Your task to perform on an android device: delete browsing data in the chrome app Image 0: 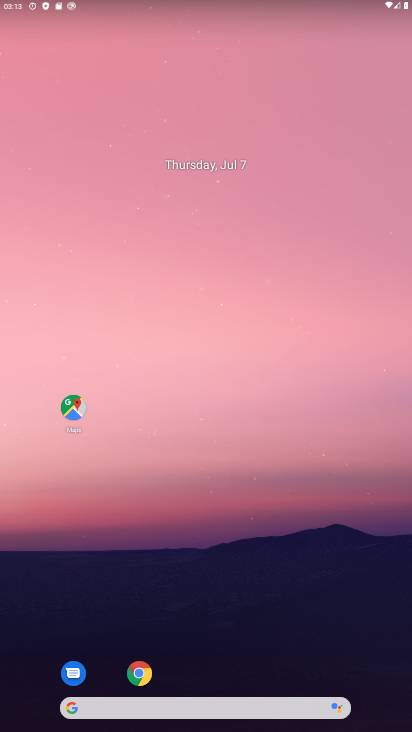
Step 0: click (138, 664)
Your task to perform on an android device: delete browsing data in the chrome app Image 1: 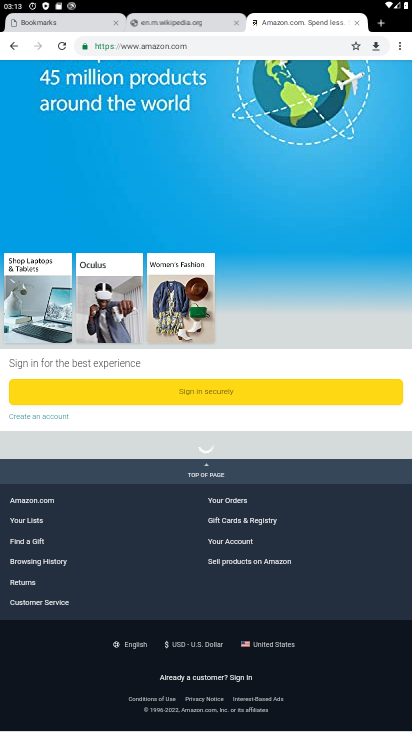
Step 1: click (400, 48)
Your task to perform on an android device: delete browsing data in the chrome app Image 2: 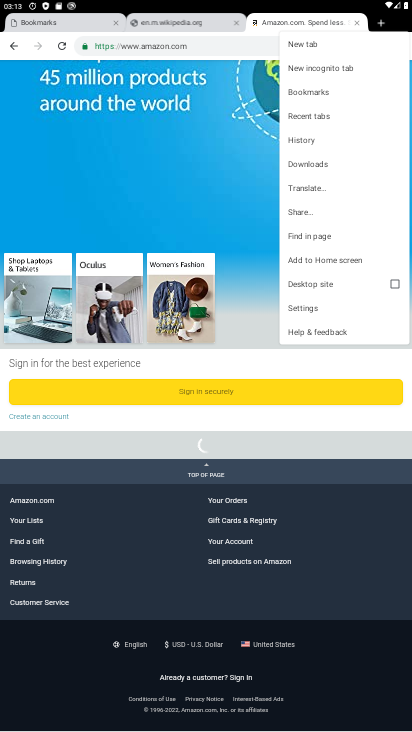
Step 2: click (321, 142)
Your task to perform on an android device: delete browsing data in the chrome app Image 3: 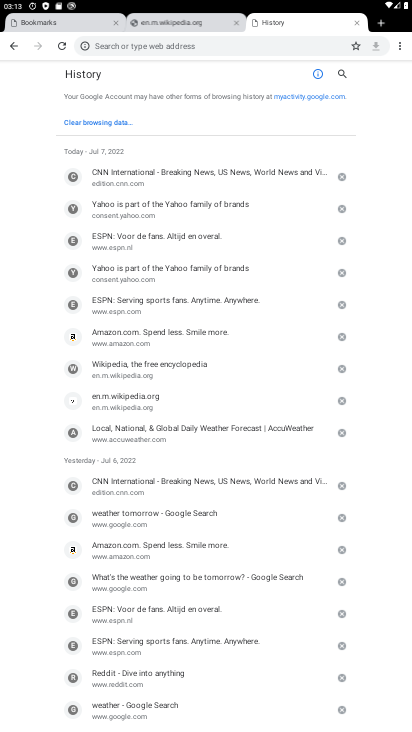
Step 3: click (94, 126)
Your task to perform on an android device: delete browsing data in the chrome app Image 4: 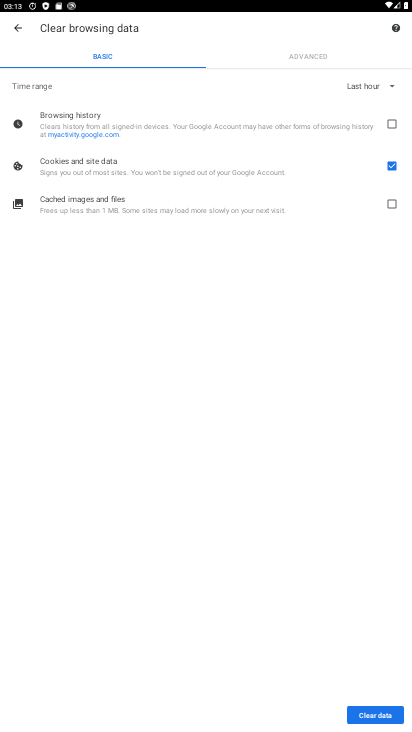
Step 4: click (393, 711)
Your task to perform on an android device: delete browsing data in the chrome app Image 5: 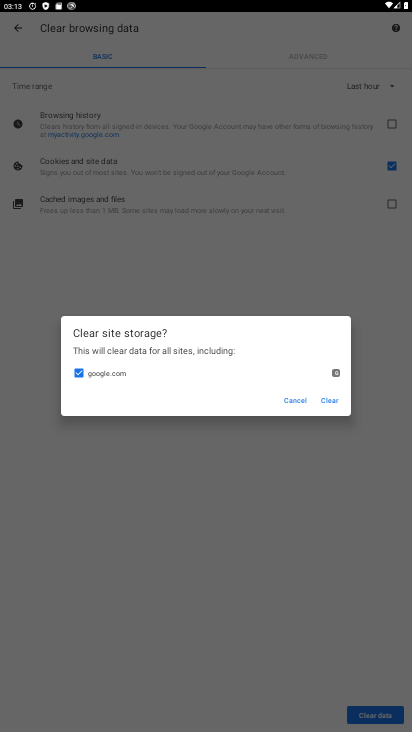
Step 5: click (336, 405)
Your task to perform on an android device: delete browsing data in the chrome app Image 6: 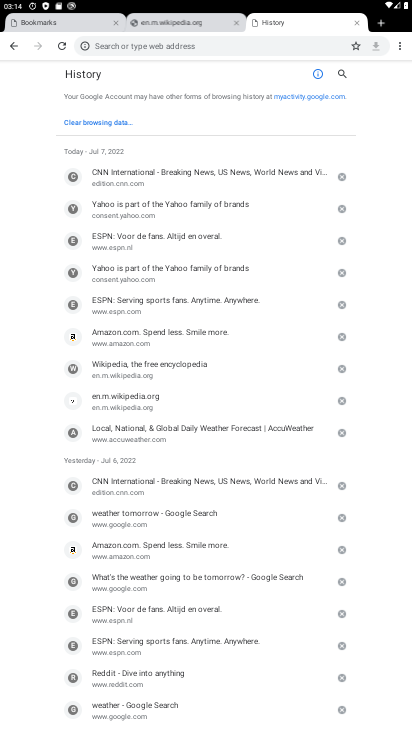
Step 6: click (90, 116)
Your task to perform on an android device: delete browsing data in the chrome app Image 7: 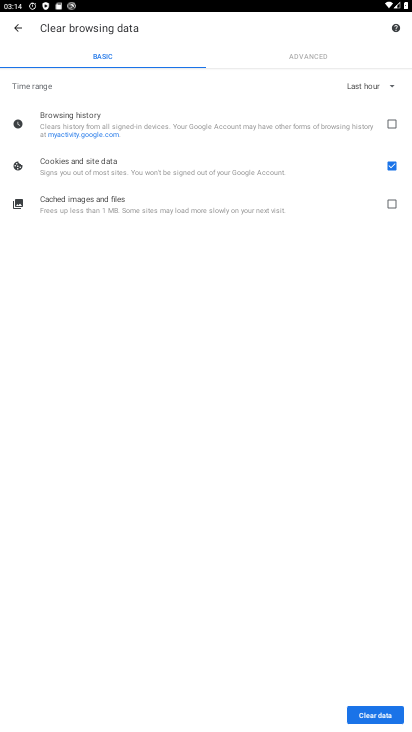
Step 7: click (393, 711)
Your task to perform on an android device: delete browsing data in the chrome app Image 8: 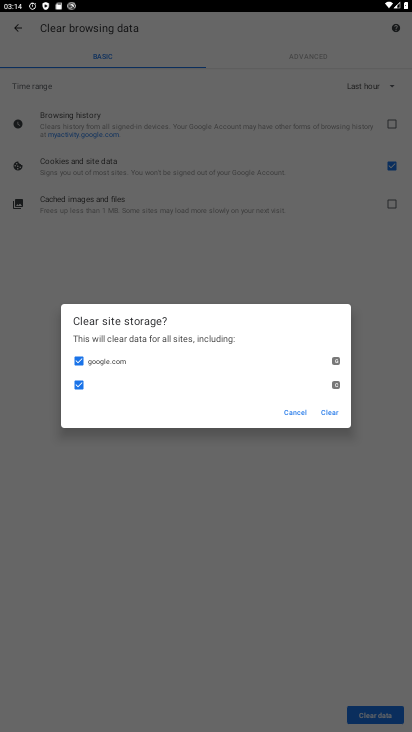
Step 8: click (328, 406)
Your task to perform on an android device: delete browsing data in the chrome app Image 9: 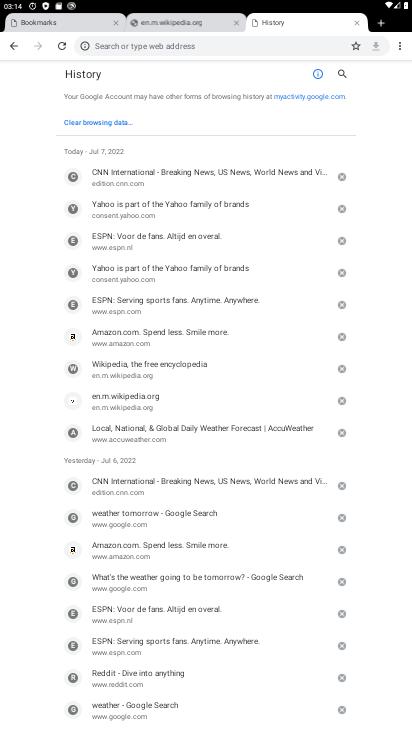
Step 9: task complete